Your task to perform on an android device: Turn on the flashlight Image 0: 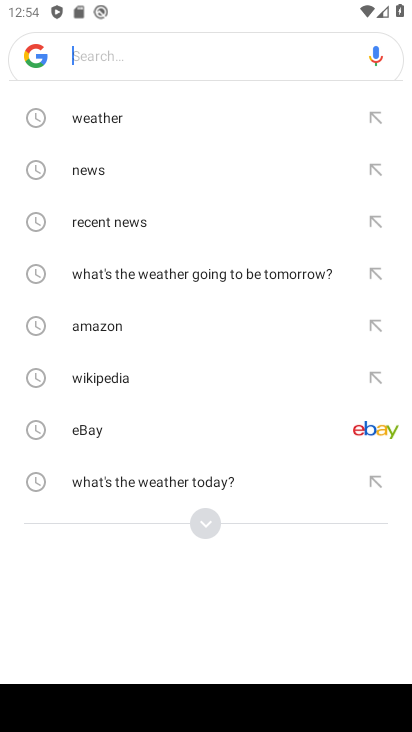
Step 0: drag from (252, 4) to (214, 421)
Your task to perform on an android device: Turn on the flashlight Image 1: 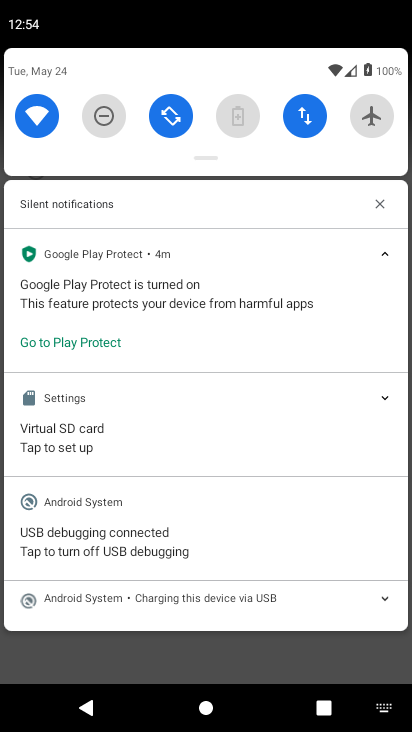
Step 1: drag from (178, 156) to (203, 411)
Your task to perform on an android device: Turn on the flashlight Image 2: 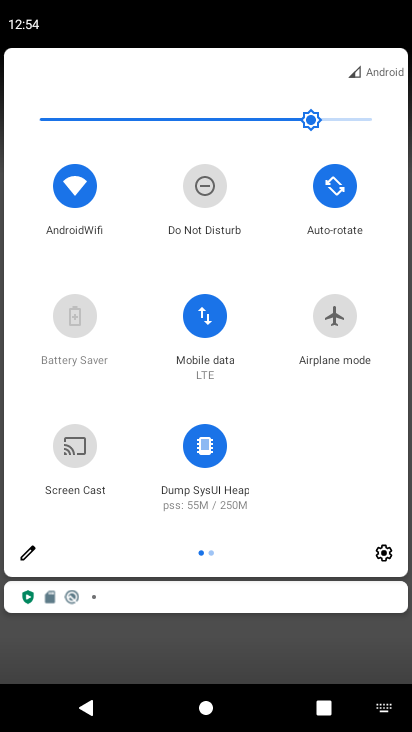
Step 2: drag from (353, 311) to (48, 328)
Your task to perform on an android device: Turn on the flashlight Image 3: 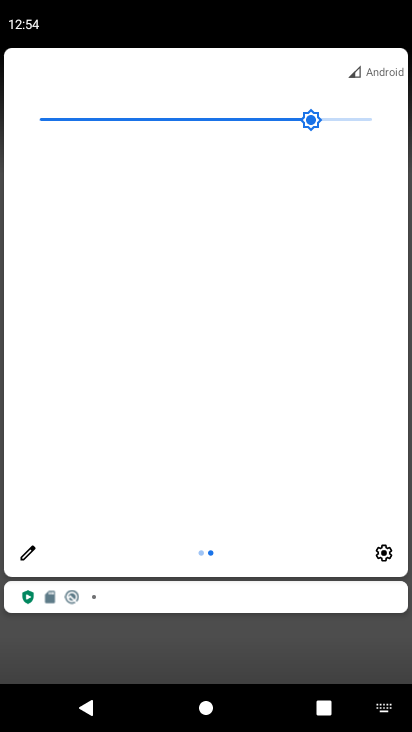
Step 3: click (25, 557)
Your task to perform on an android device: Turn on the flashlight Image 4: 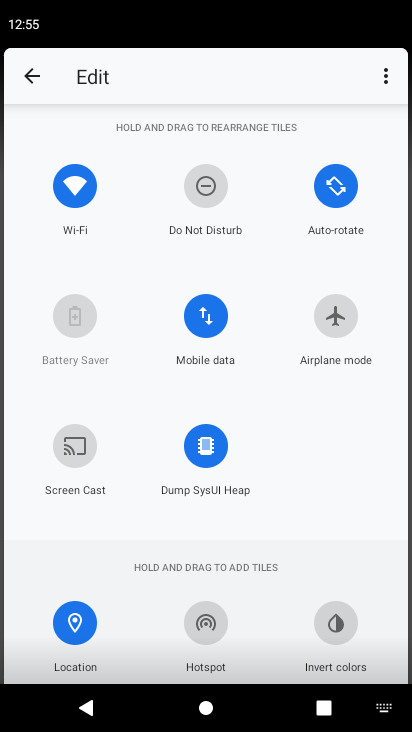
Step 4: task complete